Your task to perform on an android device: turn on data saver in the chrome app Image 0: 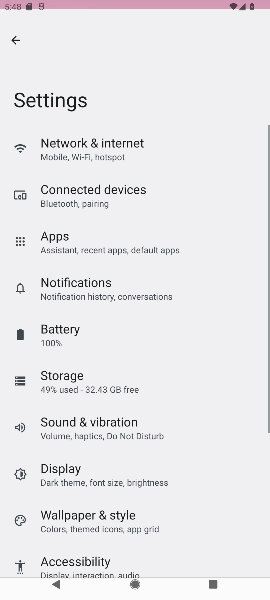
Step 0: press home button
Your task to perform on an android device: turn on data saver in the chrome app Image 1: 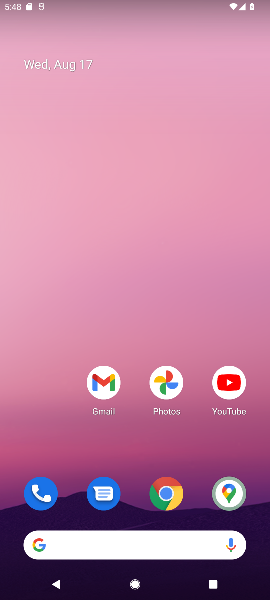
Step 1: click (179, 492)
Your task to perform on an android device: turn on data saver in the chrome app Image 2: 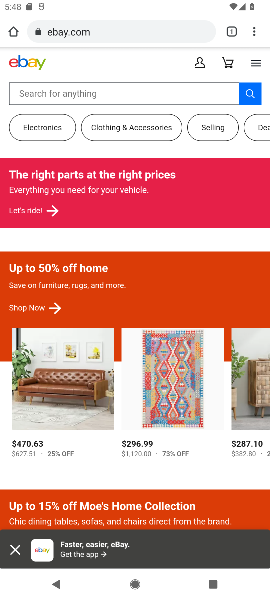
Step 2: drag from (258, 31) to (157, 412)
Your task to perform on an android device: turn on data saver in the chrome app Image 3: 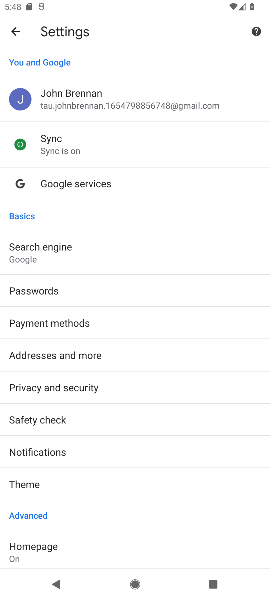
Step 3: drag from (114, 500) to (195, 305)
Your task to perform on an android device: turn on data saver in the chrome app Image 4: 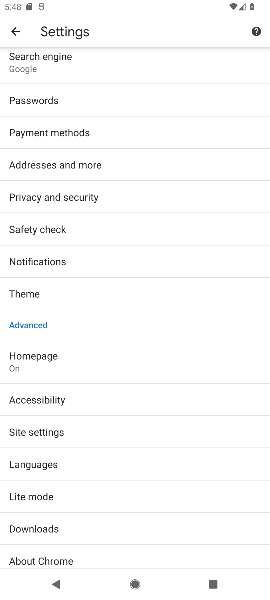
Step 4: click (27, 500)
Your task to perform on an android device: turn on data saver in the chrome app Image 5: 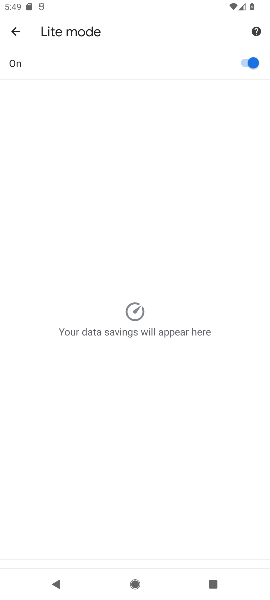
Step 5: task complete